Your task to perform on an android device: toggle translation in the chrome app Image 0: 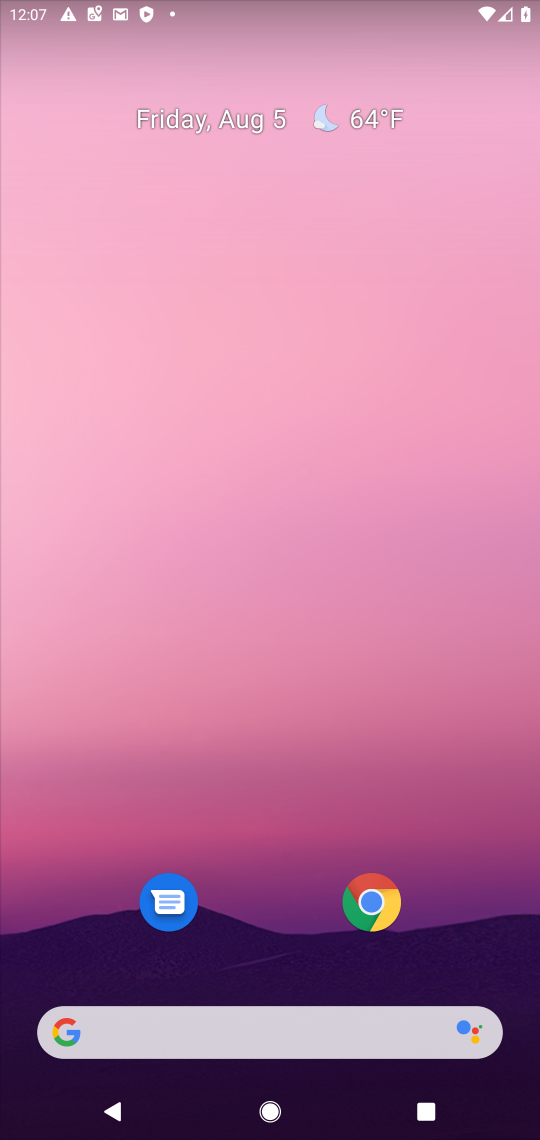
Step 0: drag from (303, 957) to (384, 7)
Your task to perform on an android device: toggle translation in the chrome app Image 1: 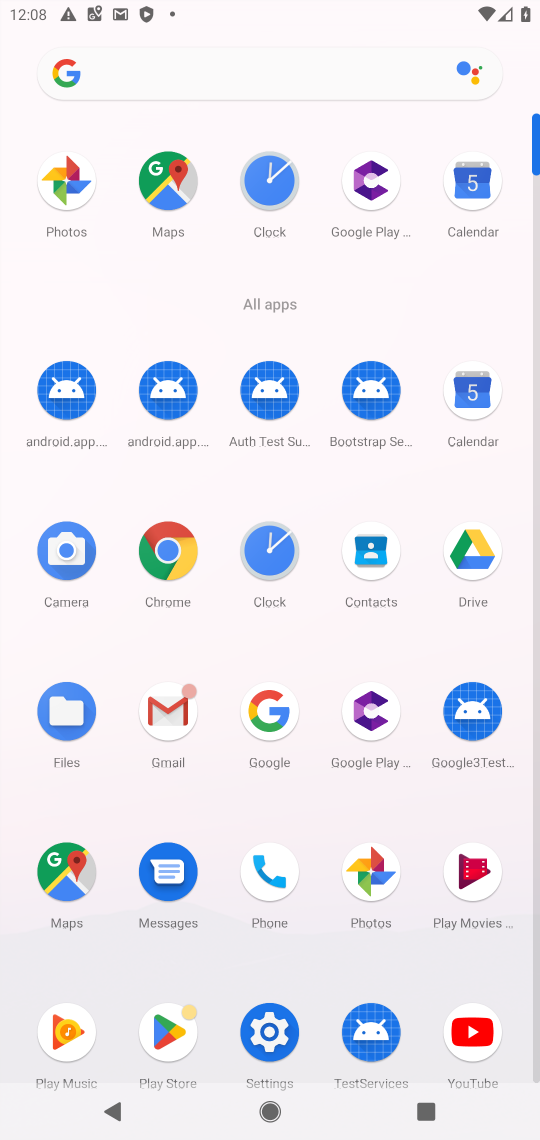
Step 1: click (164, 541)
Your task to perform on an android device: toggle translation in the chrome app Image 2: 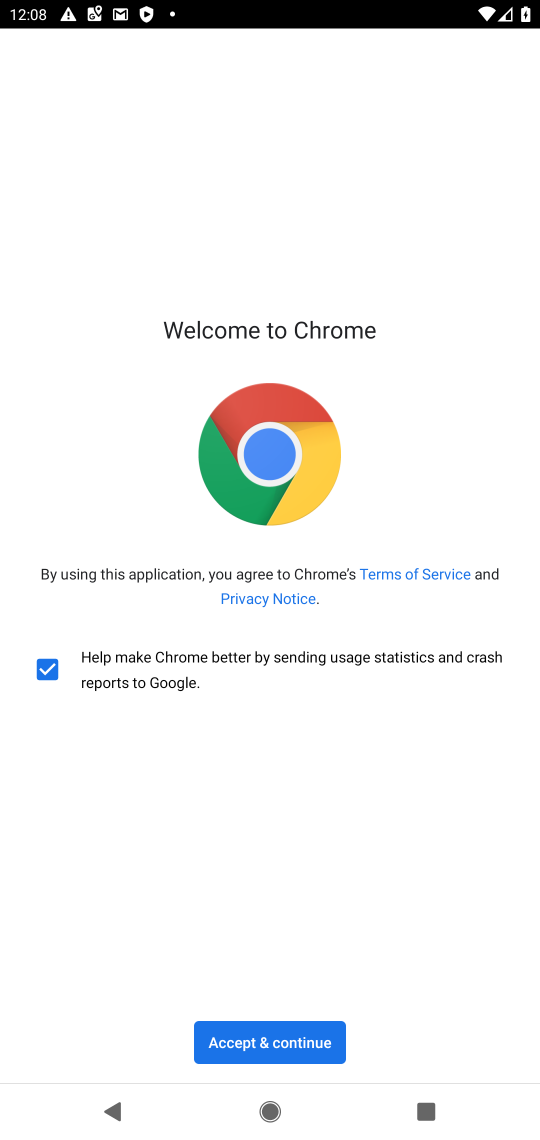
Step 2: click (253, 1027)
Your task to perform on an android device: toggle translation in the chrome app Image 3: 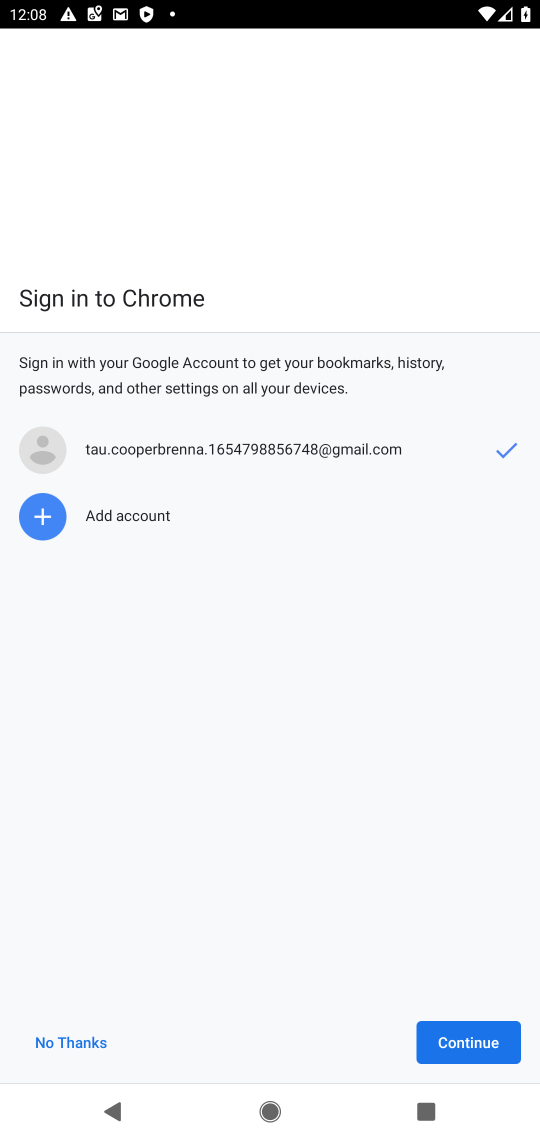
Step 3: click (479, 1038)
Your task to perform on an android device: toggle translation in the chrome app Image 4: 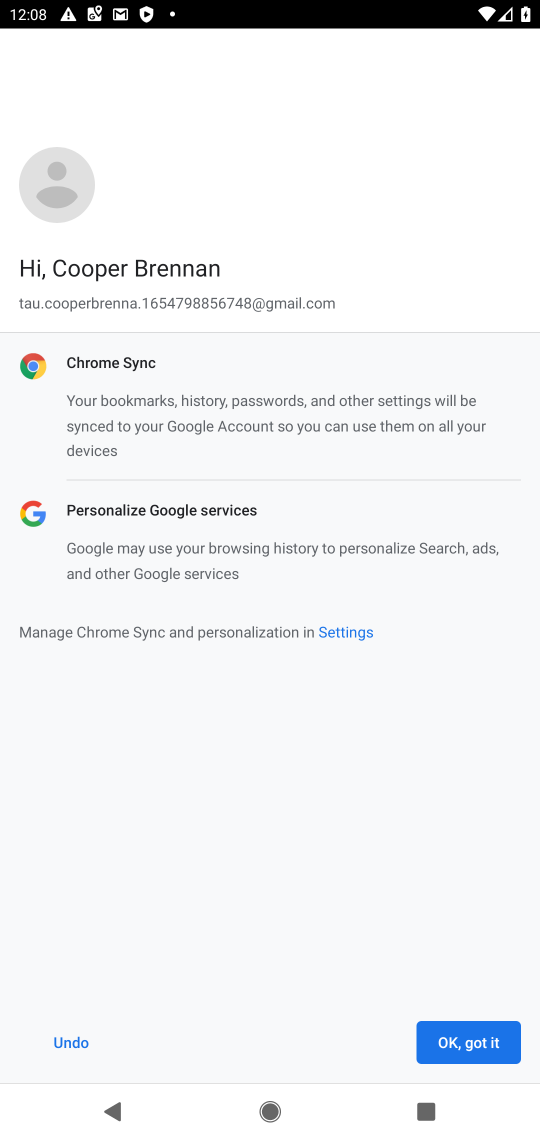
Step 4: click (467, 1030)
Your task to perform on an android device: toggle translation in the chrome app Image 5: 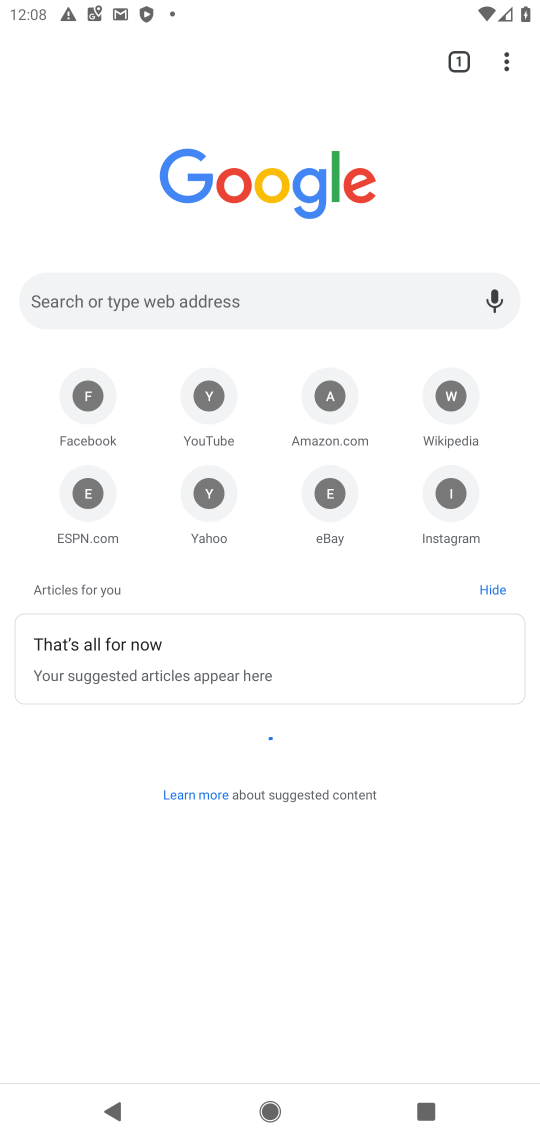
Step 5: click (511, 59)
Your task to perform on an android device: toggle translation in the chrome app Image 6: 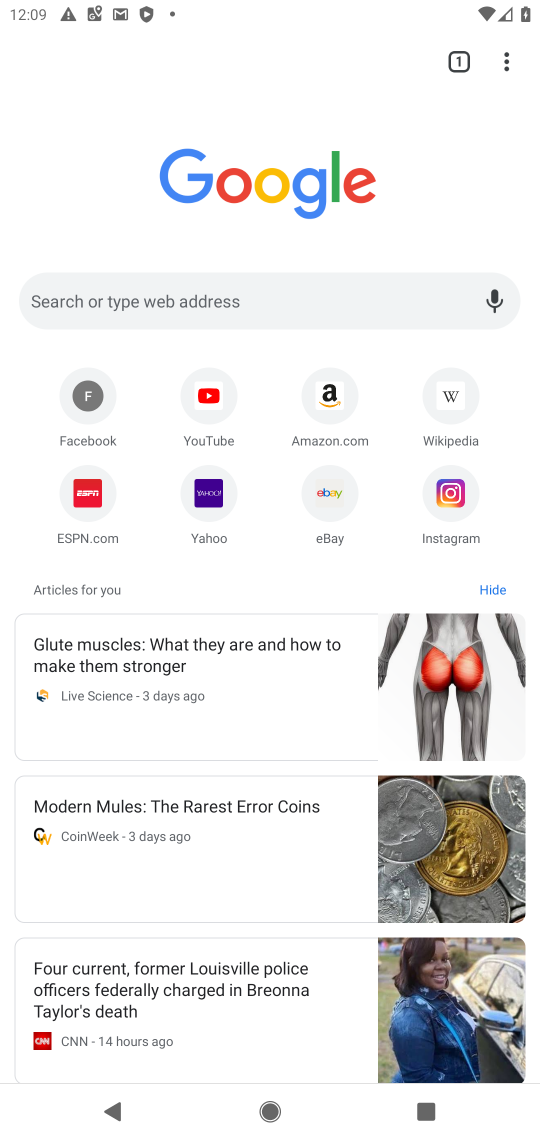
Step 6: click (511, 55)
Your task to perform on an android device: toggle translation in the chrome app Image 7: 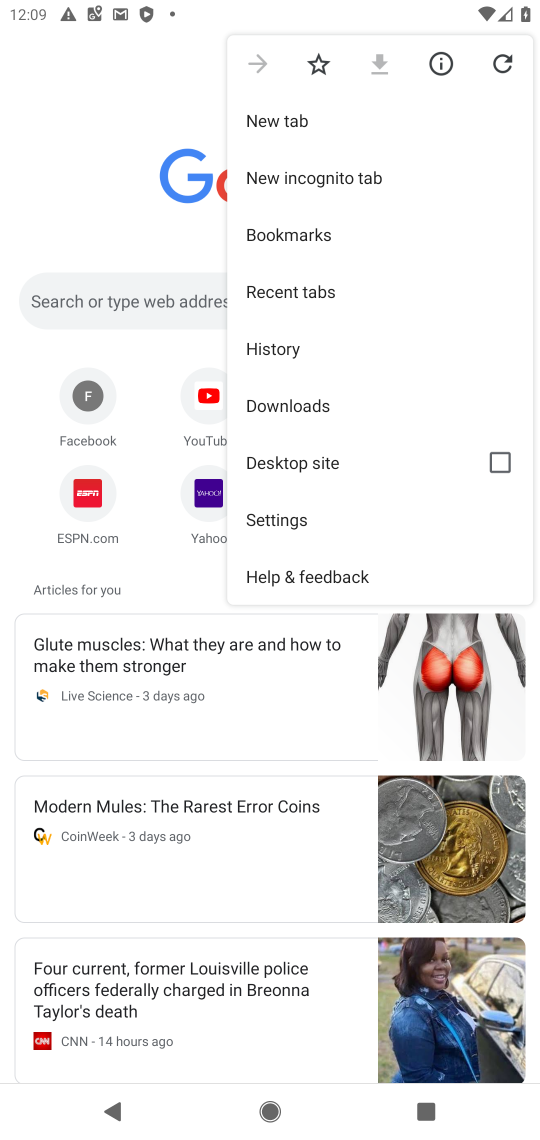
Step 7: click (314, 517)
Your task to perform on an android device: toggle translation in the chrome app Image 8: 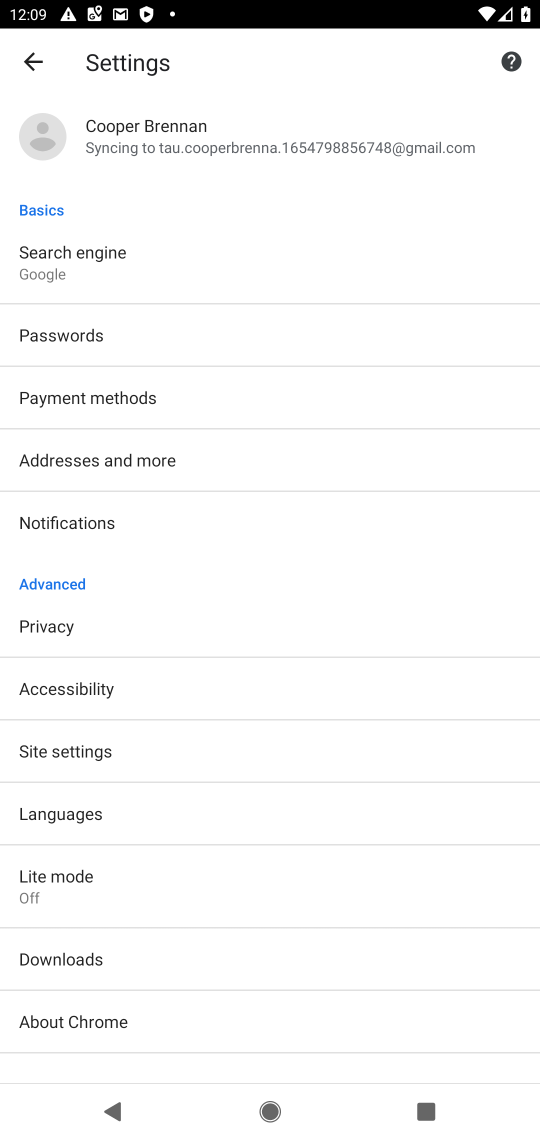
Step 8: click (134, 809)
Your task to perform on an android device: toggle translation in the chrome app Image 9: 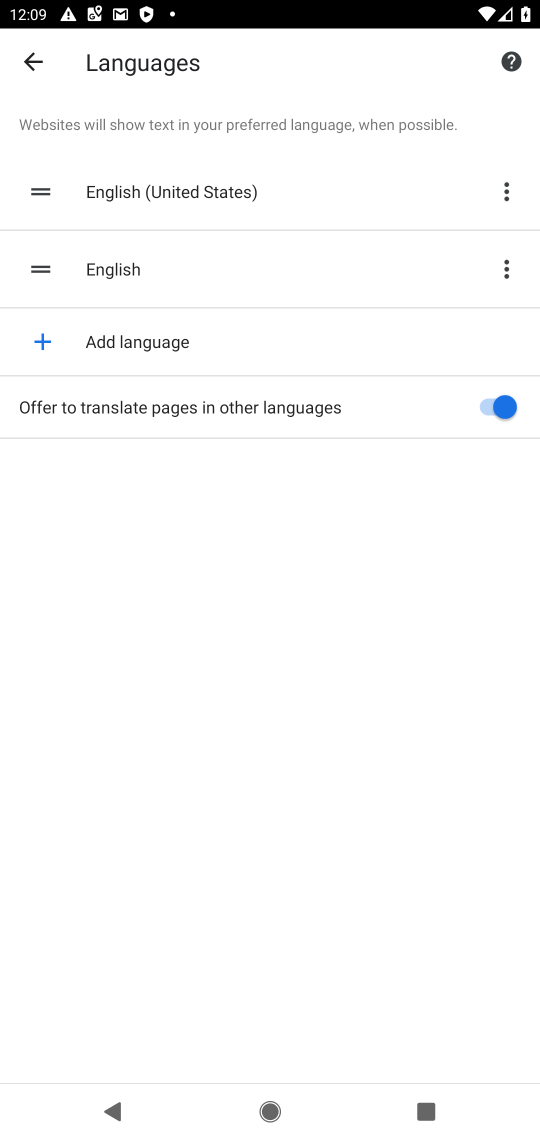
Step 9: click (492, 399)
Your task to perform on an android device: toggle translation in the chrome app Image 10: 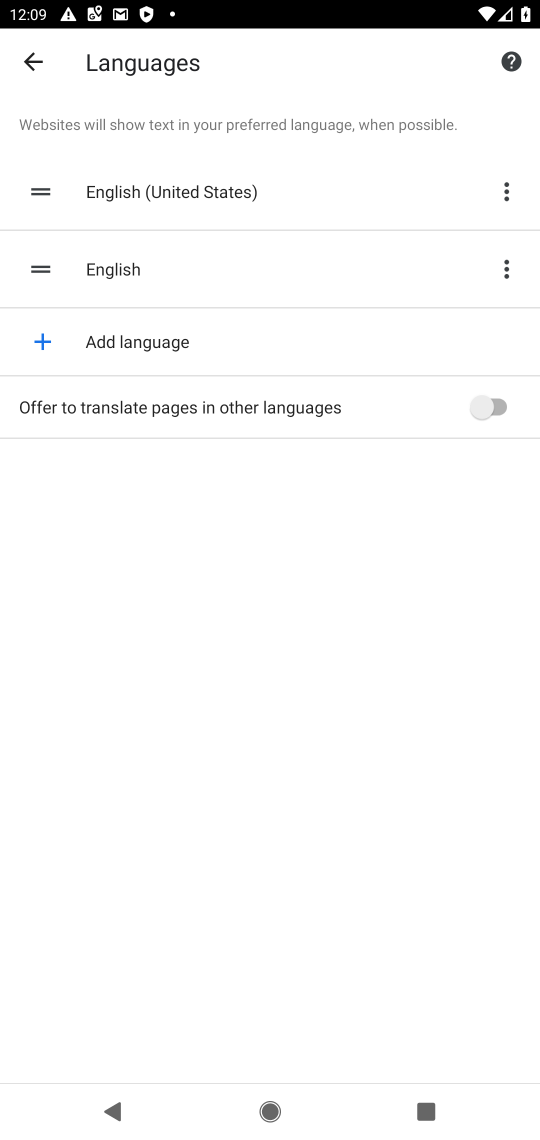
Step 10: task complete